Your task to perform on an android device: Open Reddit.com Image 0: 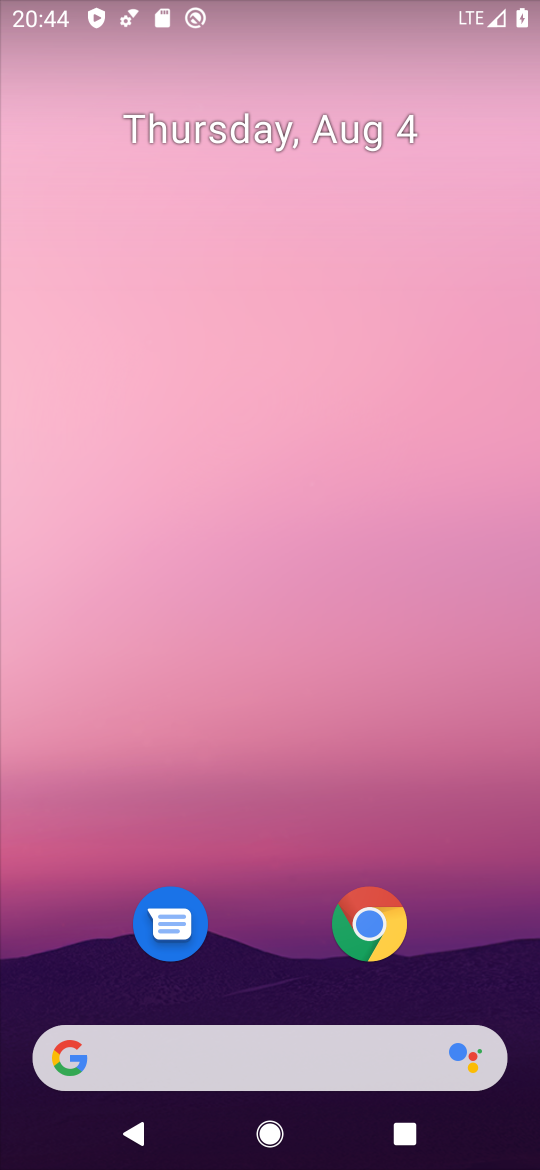
Step 0: click (392, 923)
Your task to perform on an android device: Open Reddit.com Image 1: 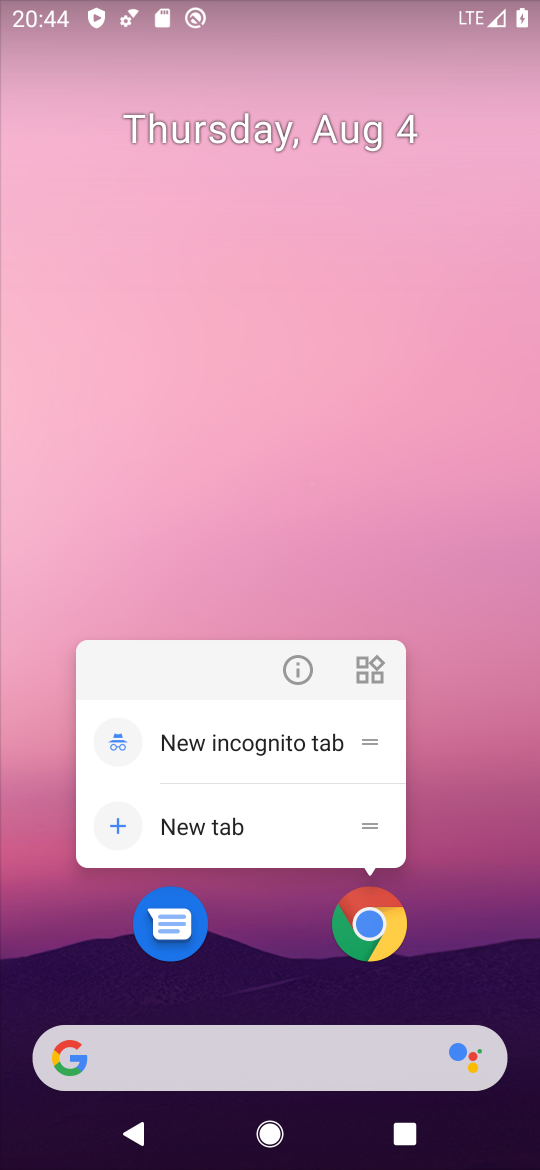
Step 1: click (394, 922)
Your task to perform on an android device: Open Reddit.com Image 2: 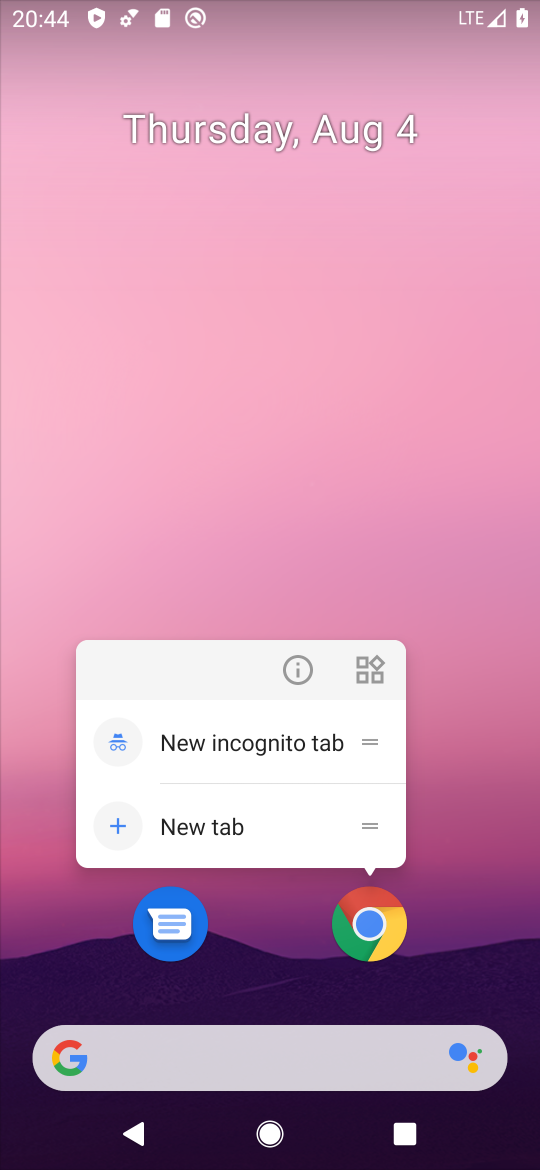
Step 2: click (368, 922)
Your task to perform on an android device: Open Reddit.com Image 3: 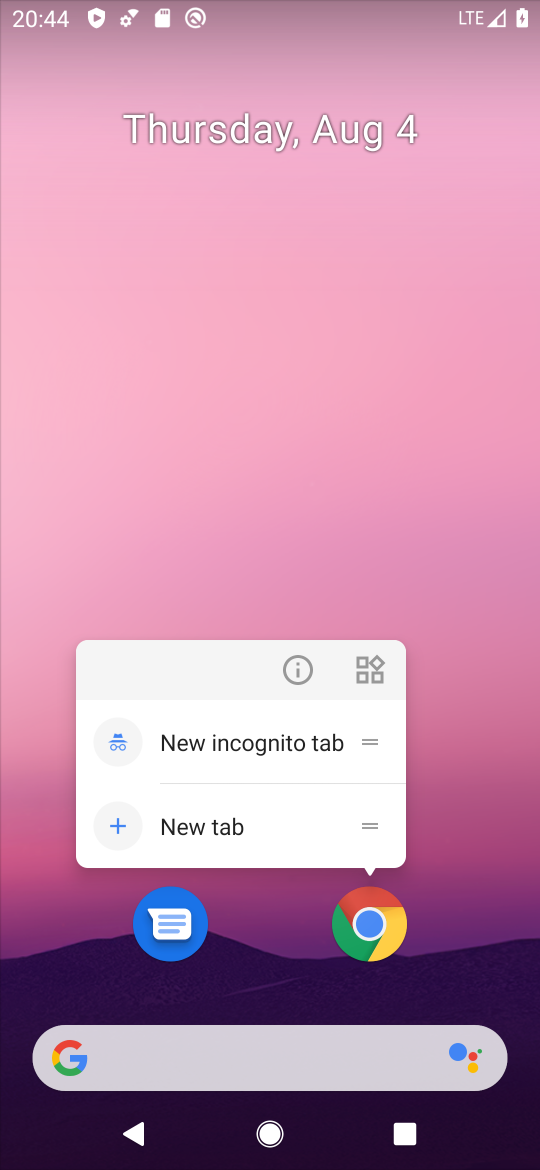
Step 3: click (366, 922)
Your task to perform on an android device: Open Reddit.com Image 4: 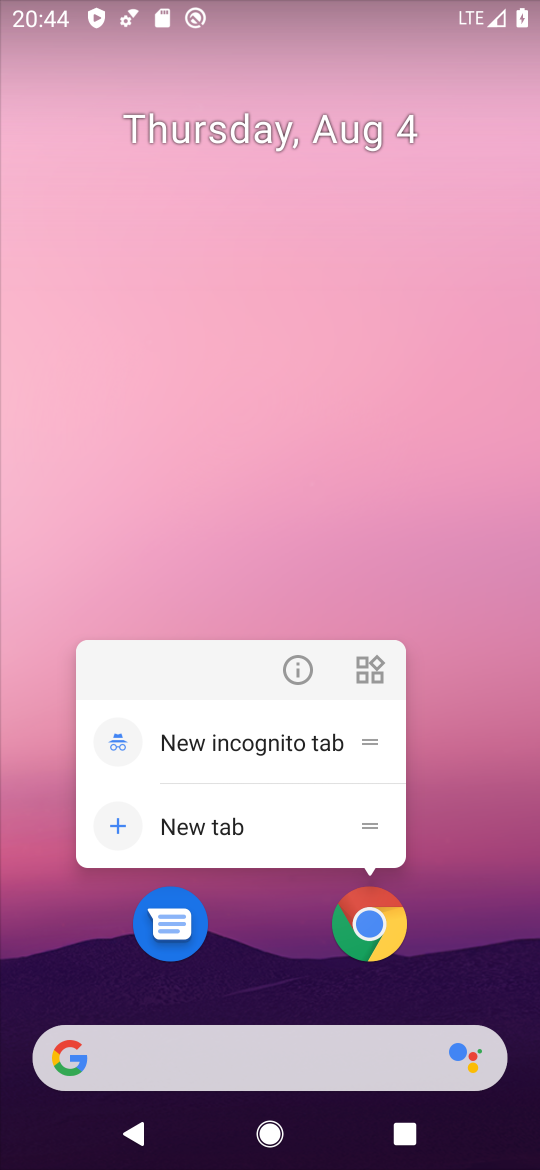
Step 4: drag from (205, 1005) to (52, 32)
Your task to perform on an android device: Open Reddit.com Image 5: 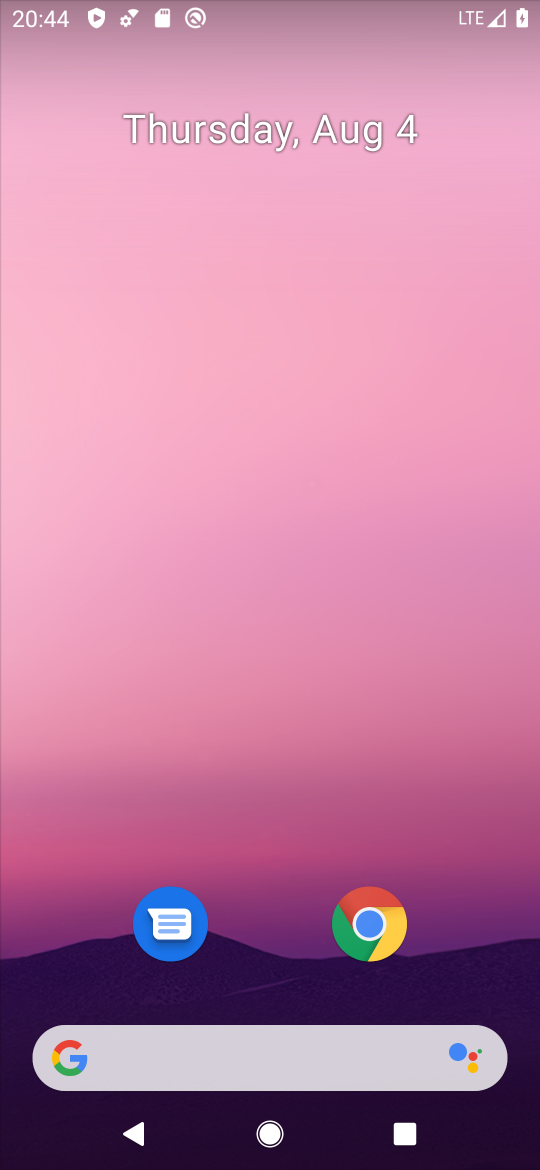
Step 5: drag from (240, 994) to (479, 957)
Your task to perform on an android device: Open Reddit.com Image 6: 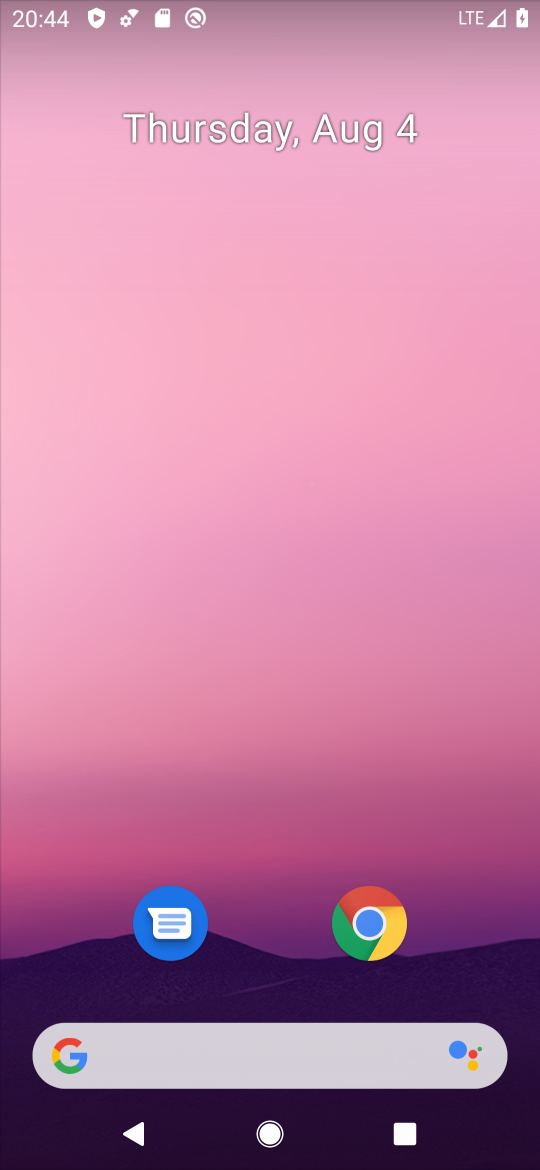
Step 6: click (175, 570)
Your task to perform on an android device: Open Reddit.com Image 7: 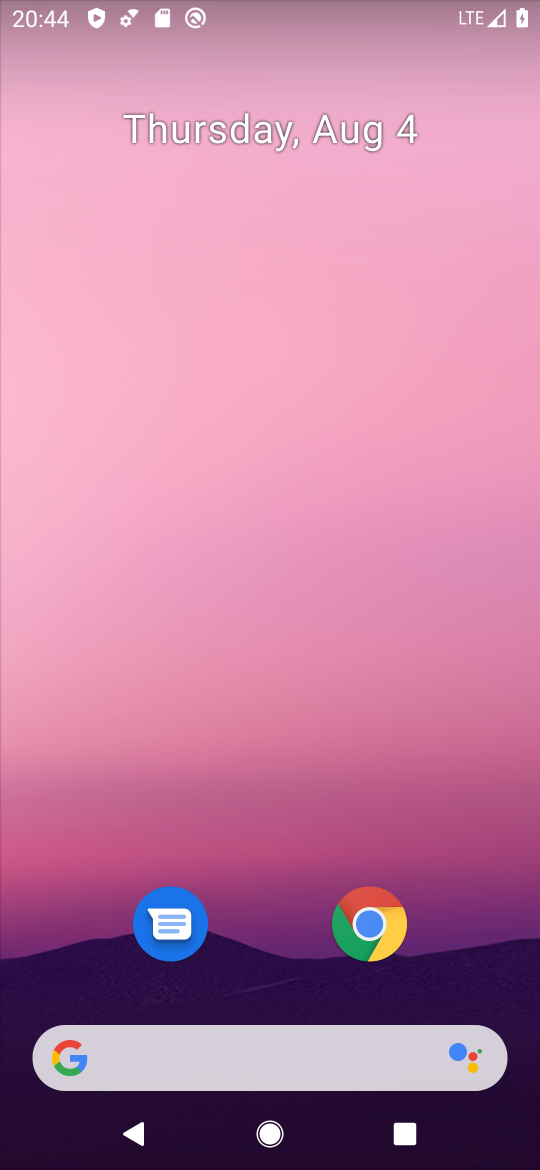
Step 7: click (350, 895)
Your task to perform on an android device: Open Reddit.com Image 8: 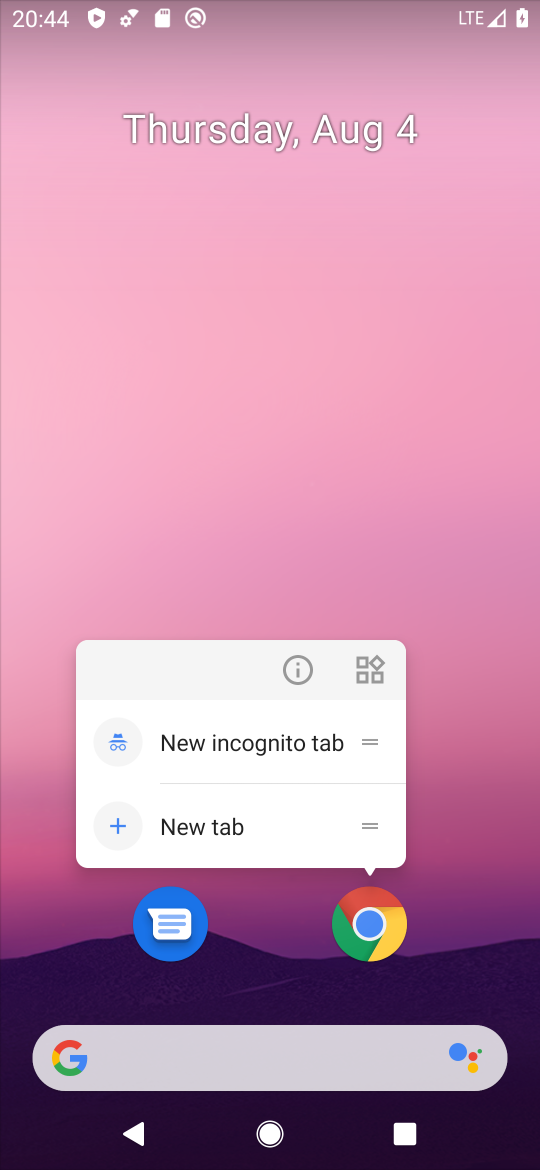
Step 8: click (357, 914)
Your task to perform on an android device: Open Reddit.com Image 9: 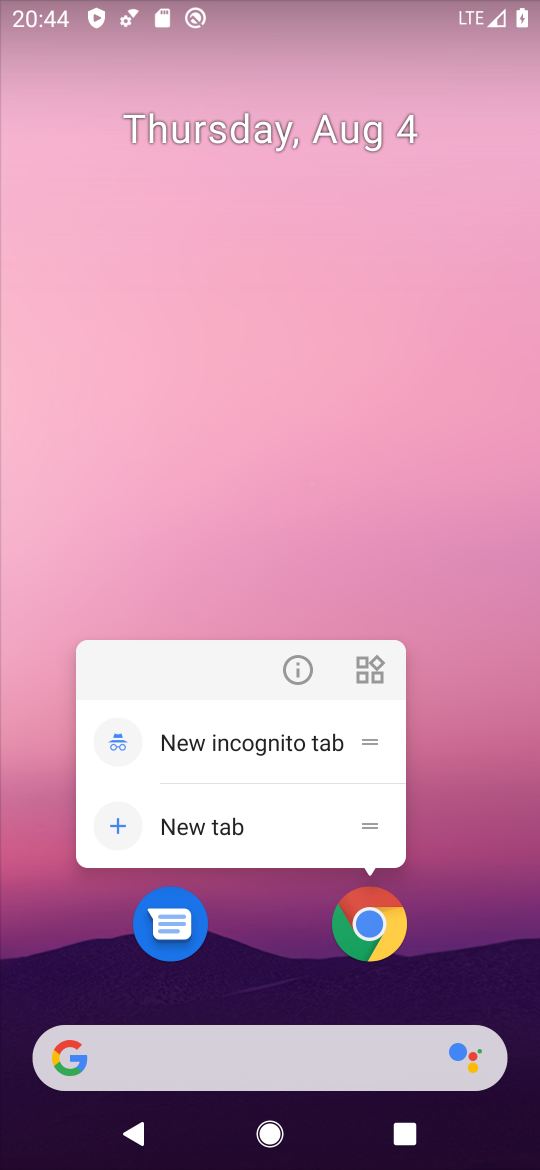
Step 9: click (383, 931)
Your task to perform on an android device: Open Reddit.com Image 10: 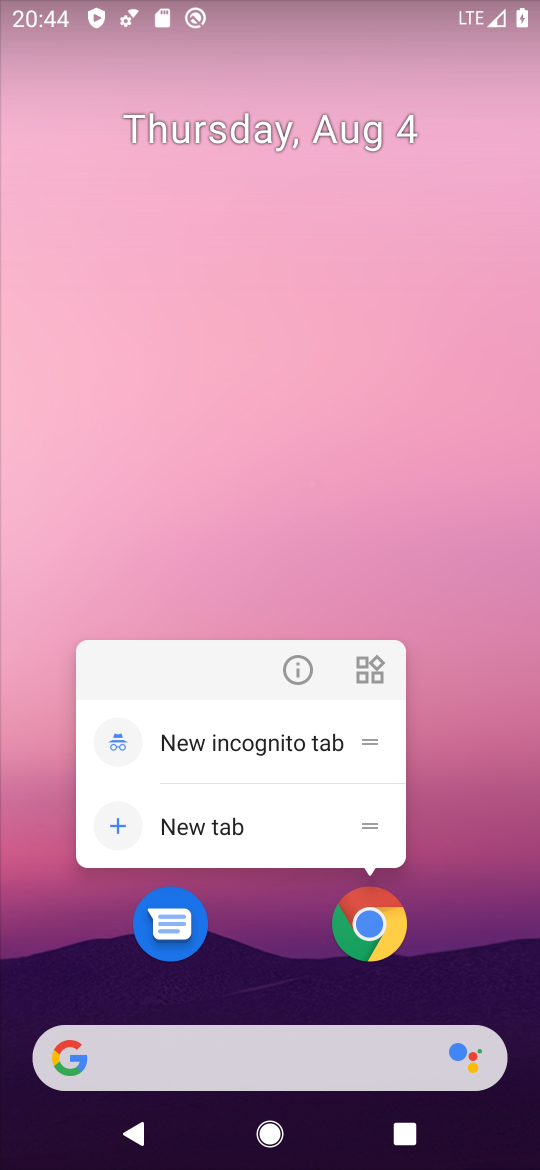
Step 10: click (307, 991)
Your task to perform on an android device: Open Reddit.com Image 11: 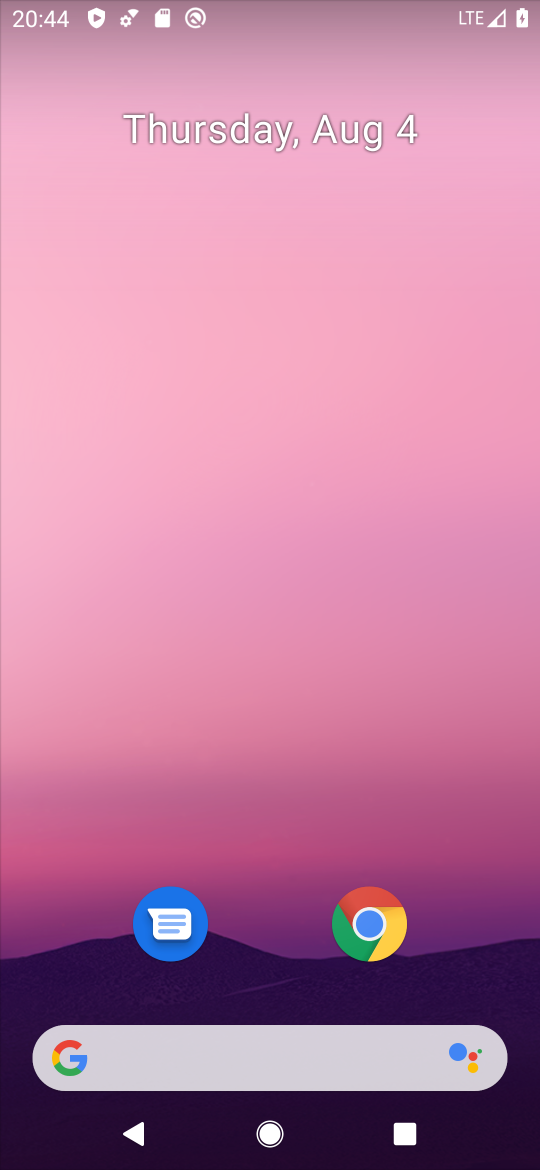
Step 11: drag from (307, 991) to (286, 19)
Your task to perform on an android device: Open Reddit.com Image 12: 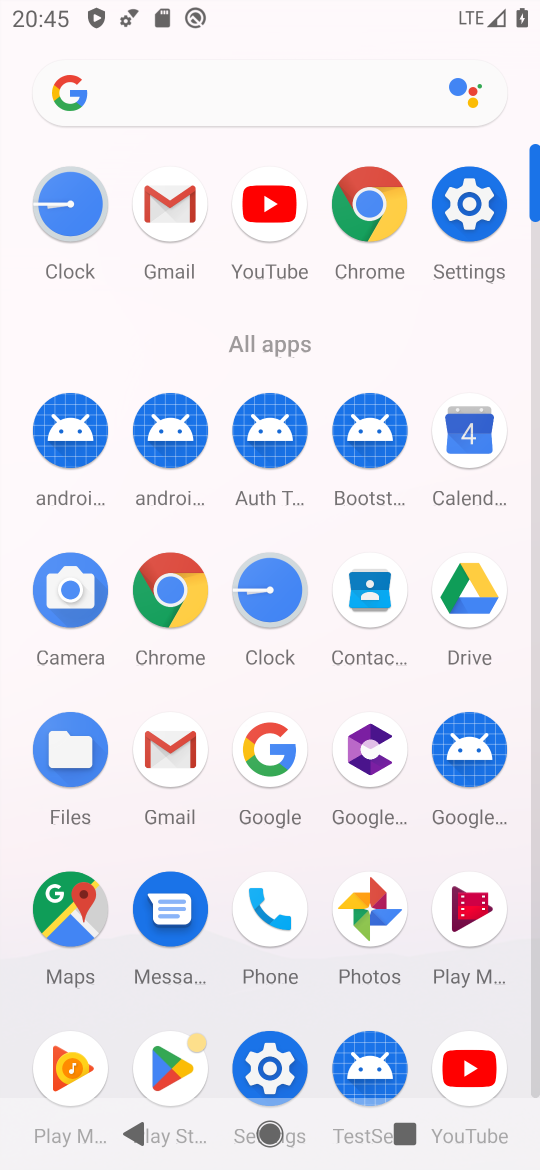
Step 12: click (345, 221)
Your task to perform on an android device: Open Reddit.com Image 13: 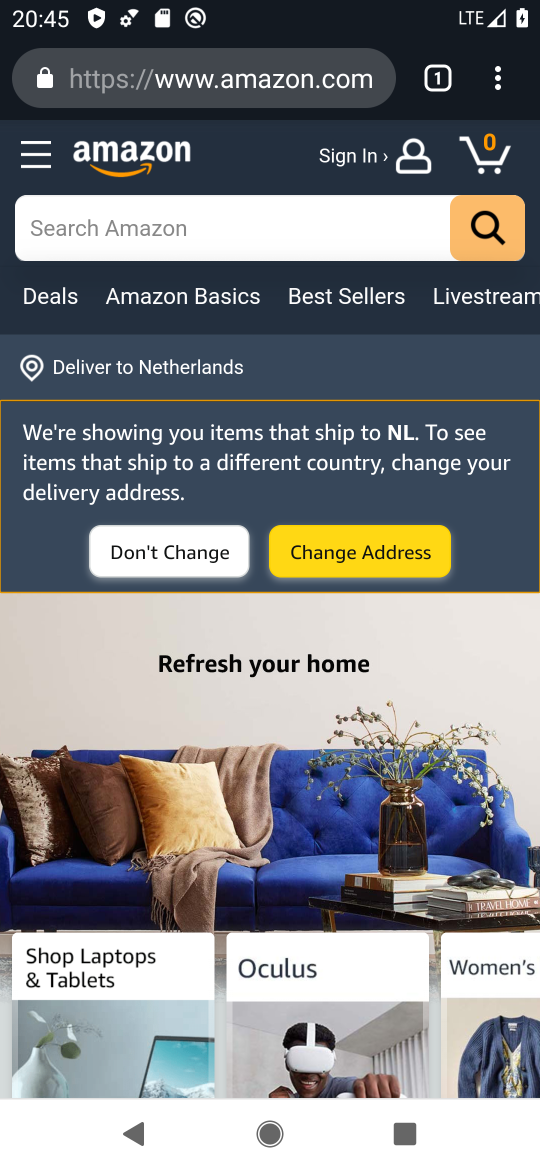
Step 13: click (448, 84)
Your task to perform on an android device: Open Reddit.com Image 14: 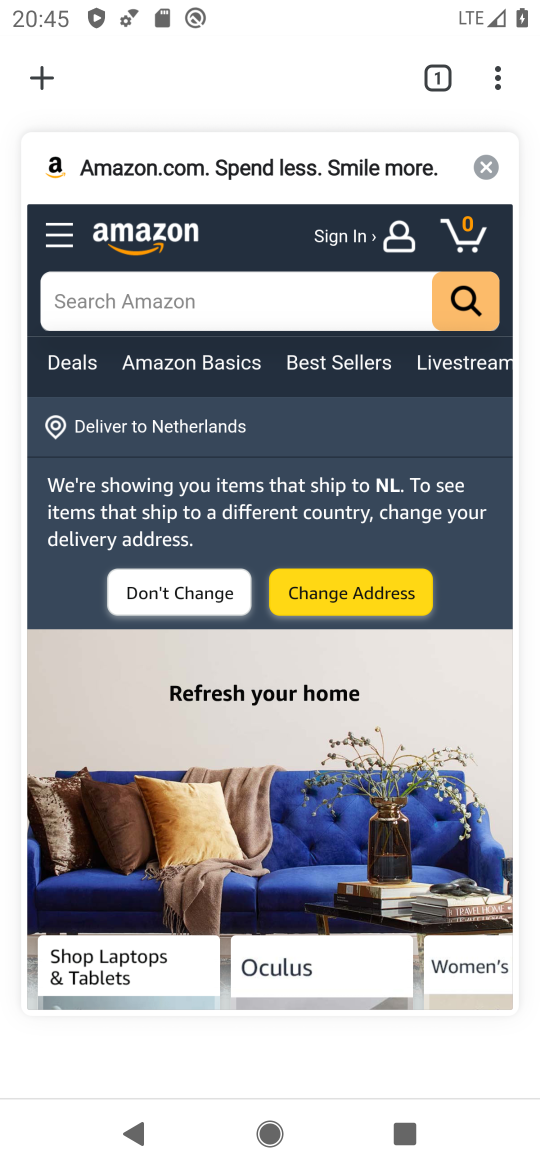
Step 14: click (39, 72)
Your task to perform on an android device: Open Reddit.com Image 15: 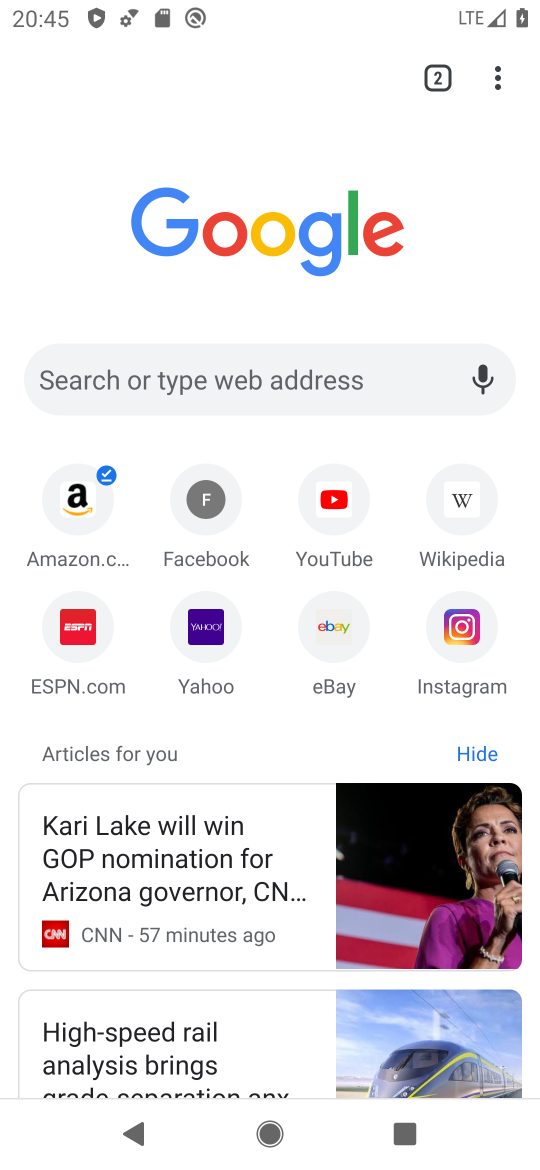
Step 15: click (224, 378)
Your task to perform on an android device: Open Reddit.com Image 16: 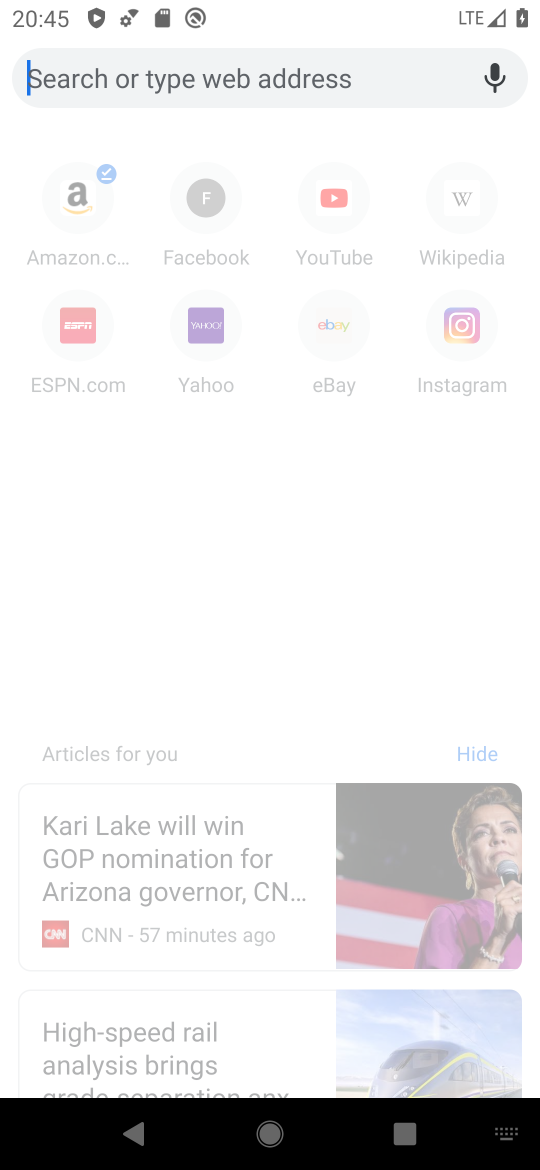
Step 16: type "Reddit.com"
Your task to perform on an android device: Open Reddit.com Image 17: 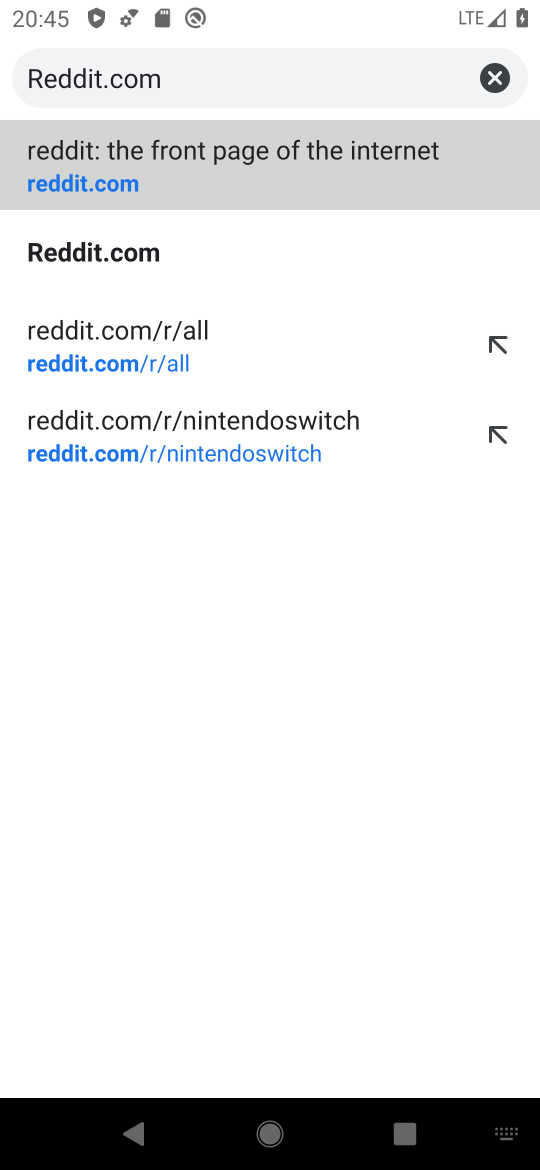
Step 17: click (181, 189)
Your task to perform on an android device: Open Reddit.com Image 18: 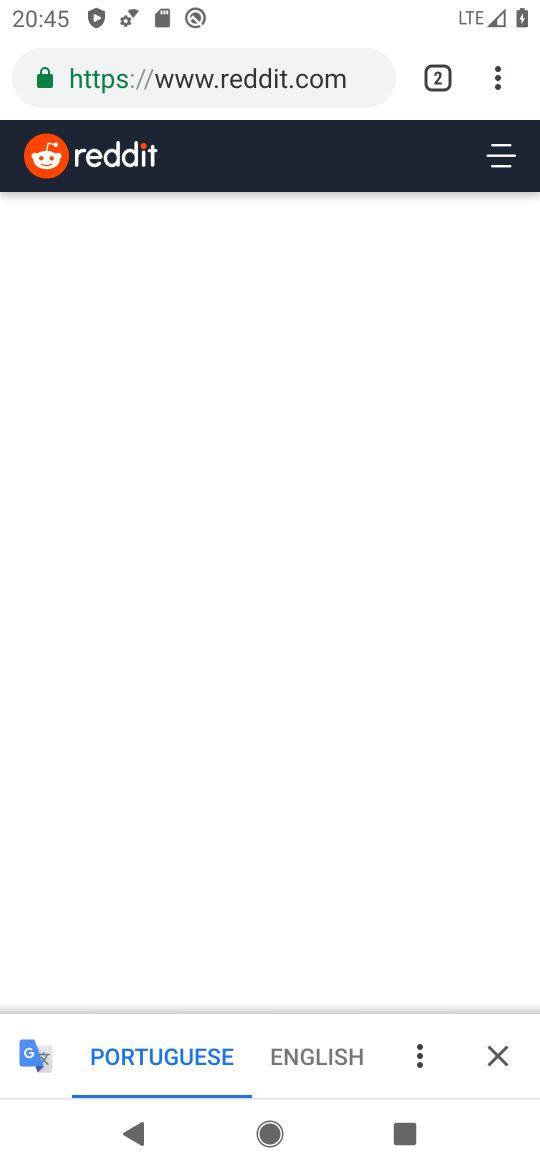
Step 18: task complete